Your task to perform on an android device: Open Google Chrome and click the shortcut for Amazon.com Image 0: 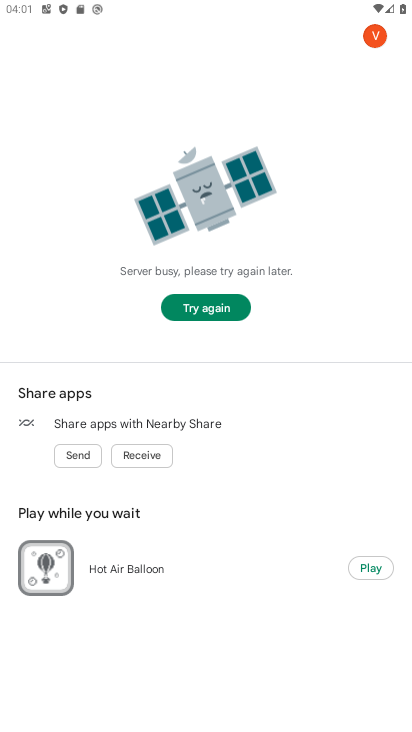
Step 0: press home button
Your task to perform on an android device: Open Google Chrome and click the shortcut for Amazon.com Image 1: 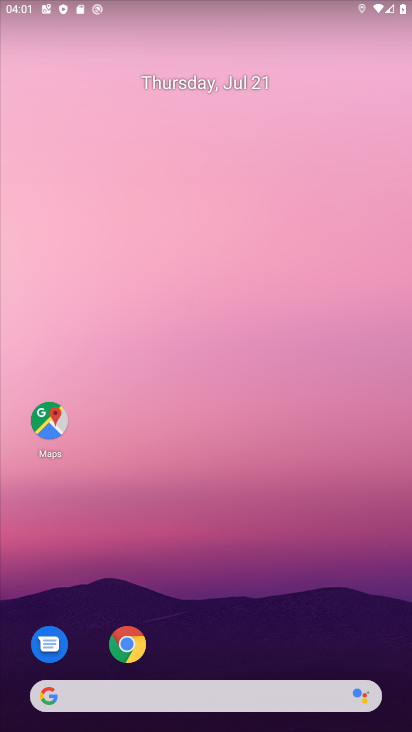
Step 1: click (127, 646)
Your task to perform on an android device: Open Google Chrome and click the shortcut for Amazon.com Image 2: 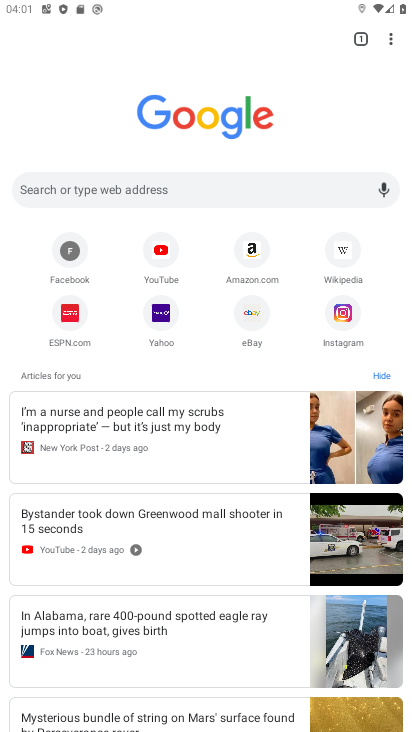
Step 2: click (253, 247)
Your task to perform on an android device: Open Google Chrome and click the shortcut for Amazon.com Image 3: 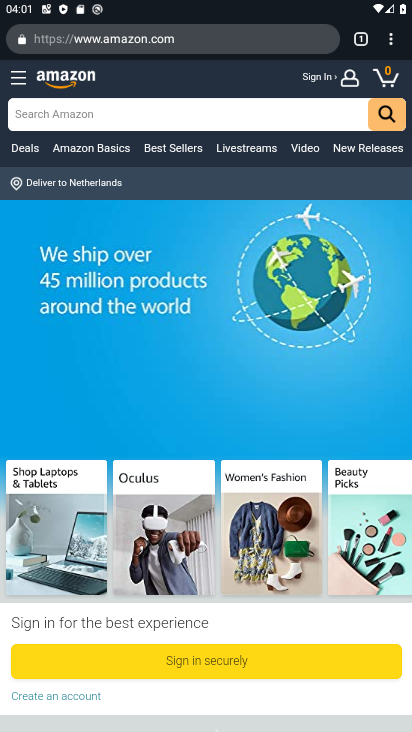
Step 3: task complete